Your task to perform on an android device: Open calendar and show me the second week of next month Image 0: 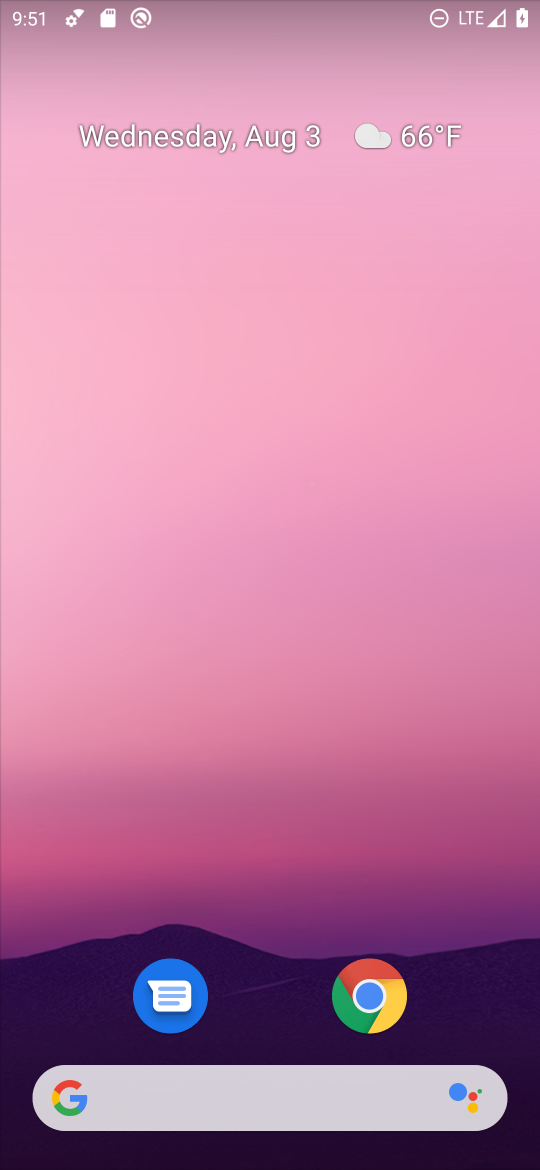
Step 0: drag from (319, 902) to (354, 140)
Your task to perform on an android device: Open calendar and show me the second week of next month Image 1: 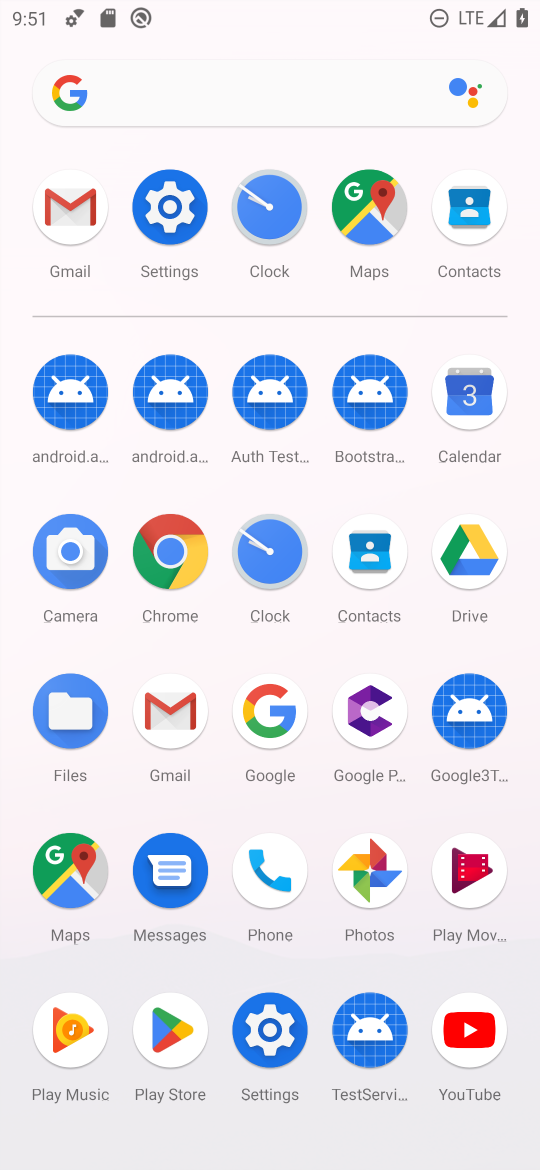
Step 1: click (472, 395)
Your task to perform on an android device: Open calendar and show me the second week of next month Image 2: 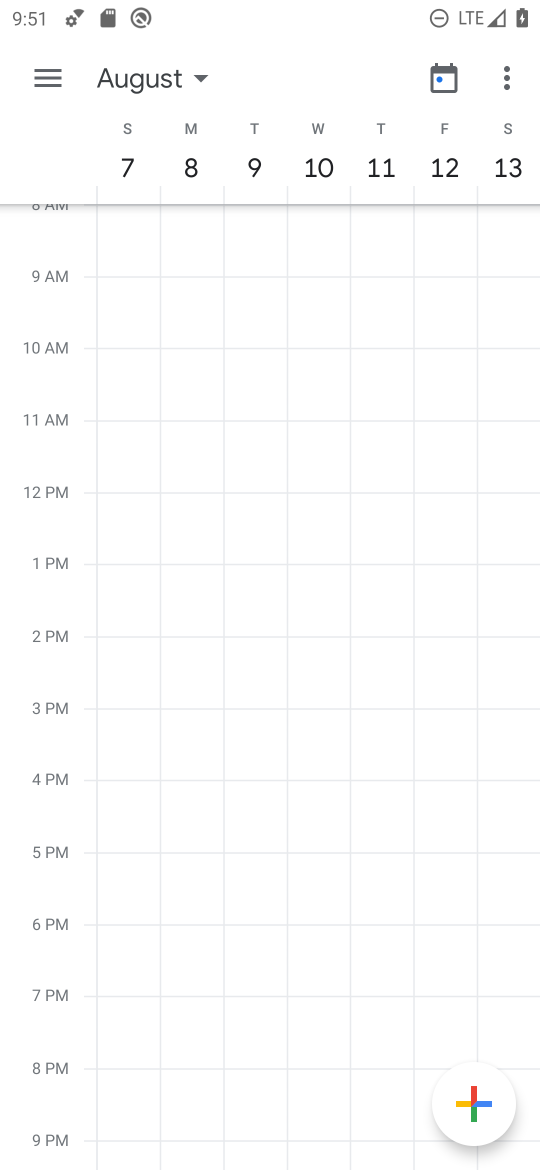
Step 2: task complete